Your task to perform on an android device: Go to accessibility settings Image 0: 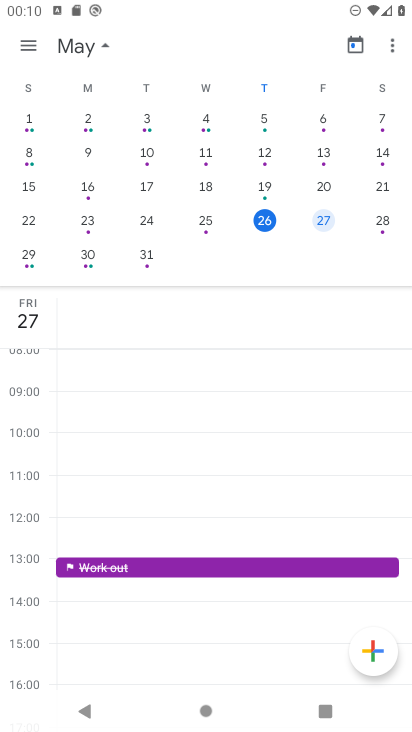
Step 0: press home button
Your task to perform on an android device: Go to accessibility settings Image 1: 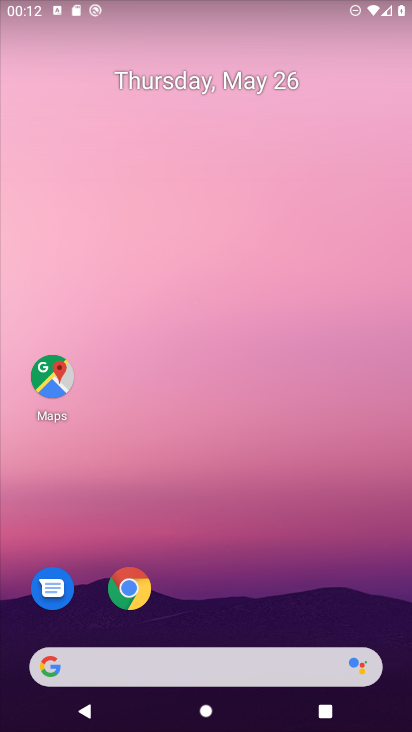
Step 1: drag from (38, 624) to (273, 183)
Your task to perform on an android device: Go to accessibility settings Image 2: 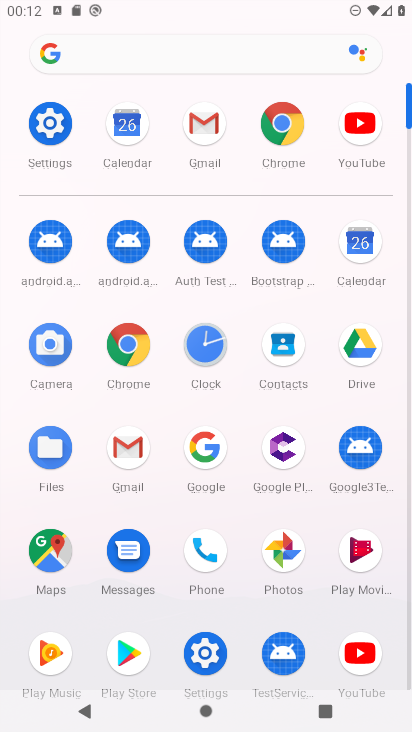
Step 2: click (79, 126)
Your task to perform on an android device: Go to accessibility settings Image 3: 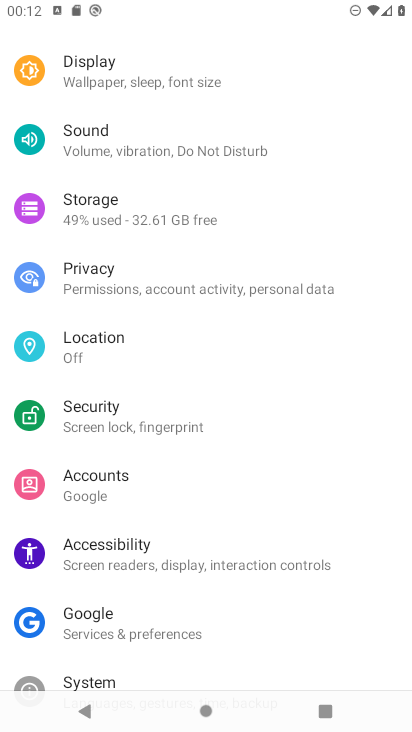
Step 3: click (145, 551)
Your task to perform on an android device: Go to accessibility settings Image 4: 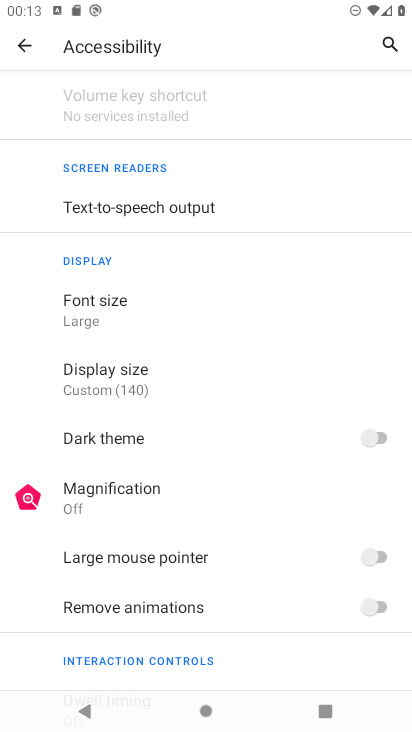
Step 4: task complete